Your task to perform on an android device: search for starred emails in the gmail app Image 0: 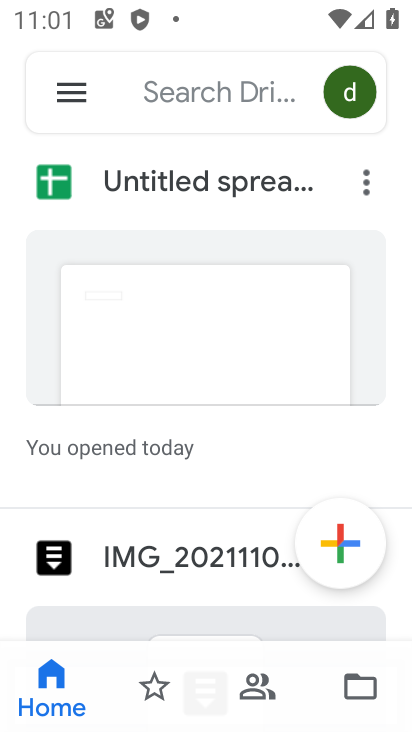
Step 0: press home button
Your task to perform on an android device: search for starred emails in the gmail app Image 1: 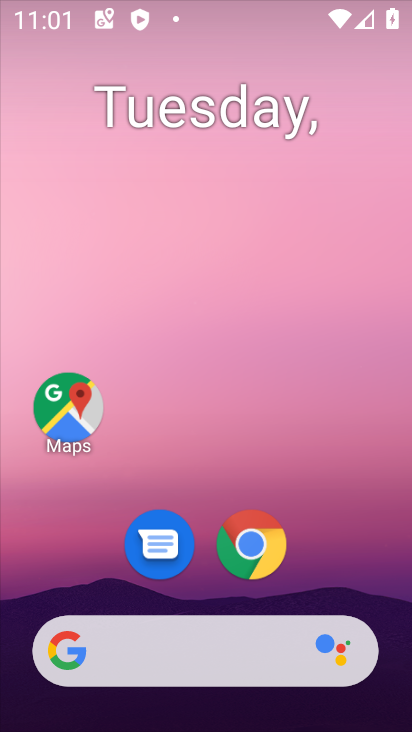
Step 1: drag from (387, 615) to (299, 53)
Your task to perform on an android device: search for starred emails in the gmail app Image 2: 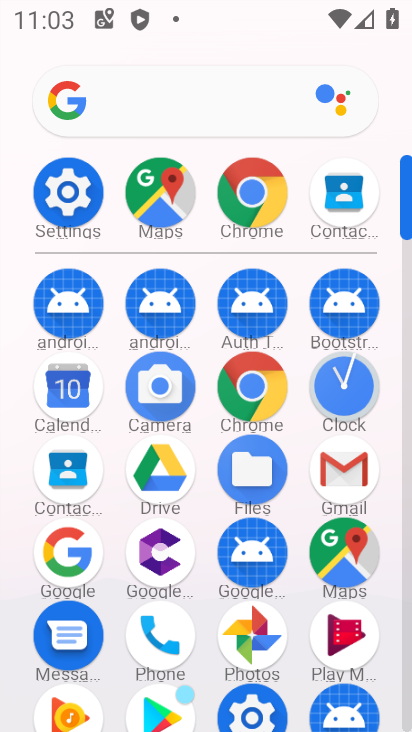
Step 2: click (332, 475)
Your task to perform on an android device: search for starred emails in the gmail app Image 3: 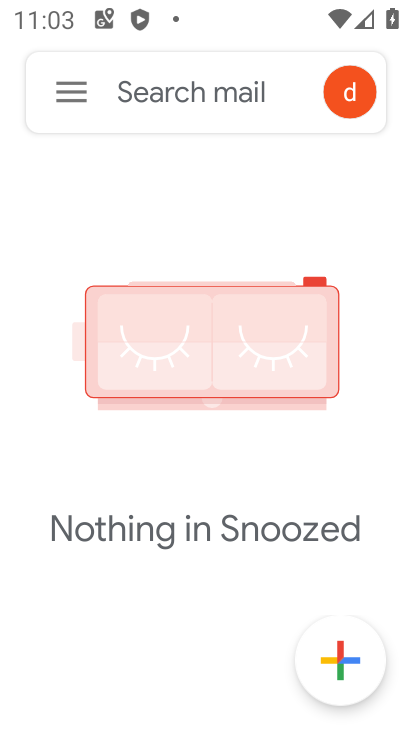
Step 3: click (66, 101)
Your task to perform on an android device: search for starred emails in the gmail app Image 4: 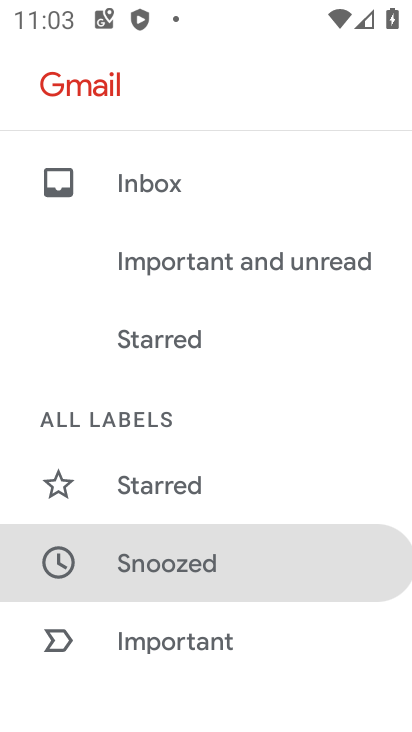
Step 4: click (180, 357)
Your task to perform on an android device: search for starred emails in the gmail app Image 5: 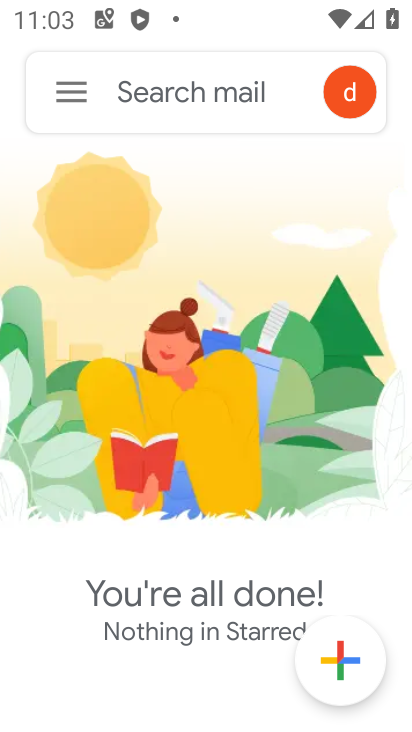
Step 5: task complete